Your task to perform on an android device: Go to Maps Image 0: 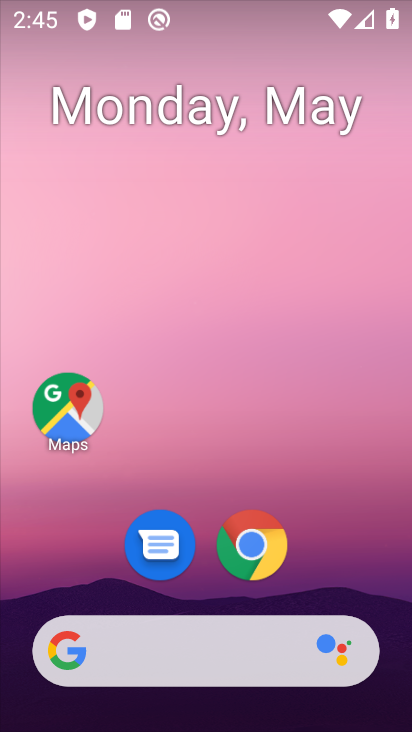
Step 0: click (72, 414)
Your task to perform on an android device: Go to Maps Image 1: 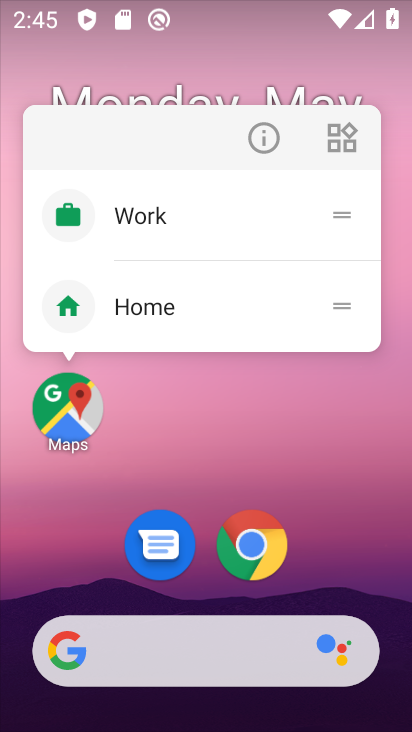
Step 1: click (80, 418)
Your task to perform on an android device: Go to Maps Image 2: 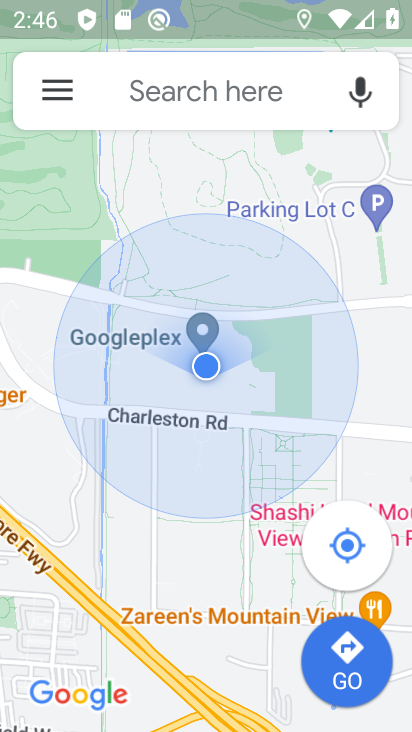
Step 2: task complete